Your task to perform on an android device: turn on showing notifications on the lock screen Image 0: 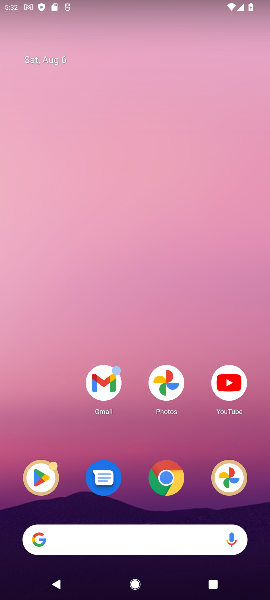
Step 0: press home button
Your task to perform on an android device: turn on showing notifications on the lock screen Image 1: 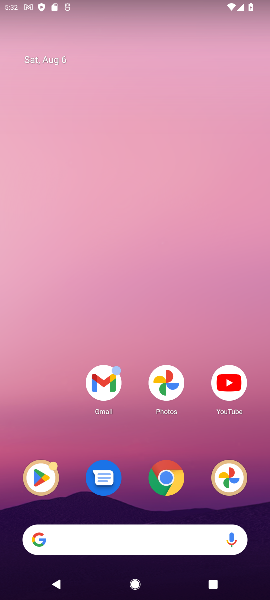
Step 1: drag from (129, 491) to (153, 123)
Your task to perform on an android device: turn on showing notifications on the lock screen Image 2: 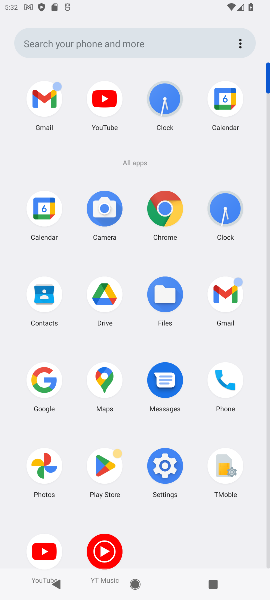
Step 2: click (166, 474)
Your task to perform on an android device: turn on showing notifications on the lock screen Image 3: 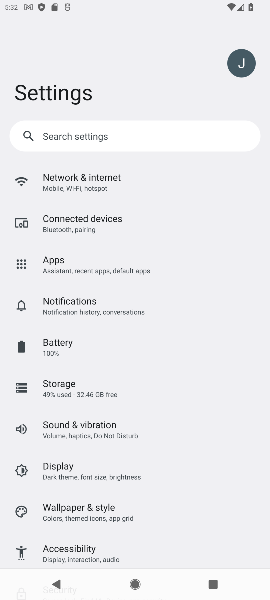
Step 3: click (72, 307)
Your task to perform on an android device: turn on showing notifications on the lock screen Image 4: 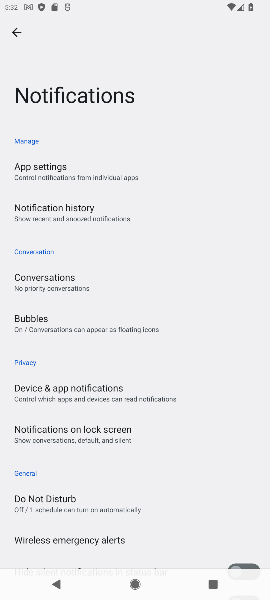
Step 4: click (78, 437)
Your task to perform on an android device: turn on showing notifications on the lock screen Image 5: 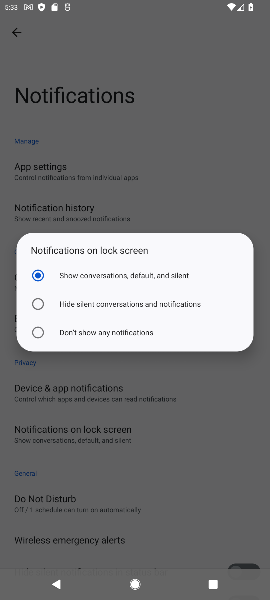
Step 5: task complete